Your task to perform on an android device: Open internet settings Image 0: 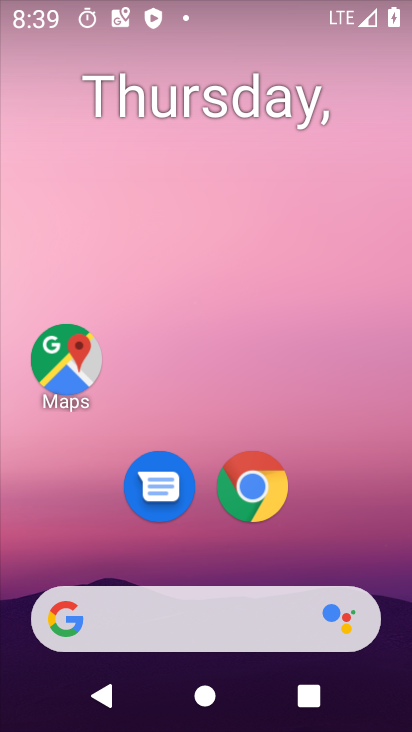
Step 0: drag from (219, 626) to (260, 266)
Your task to perform on an android device: Open internet settings Image 1: 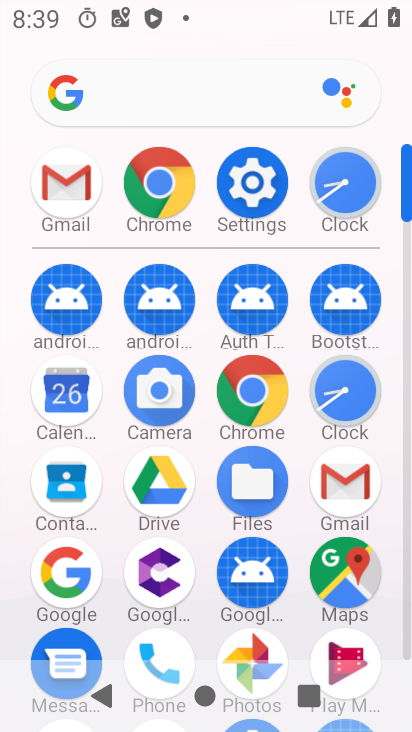
Step 1: click (252, 181)
Your task to perform on an android device: Open internet settings Image 2: 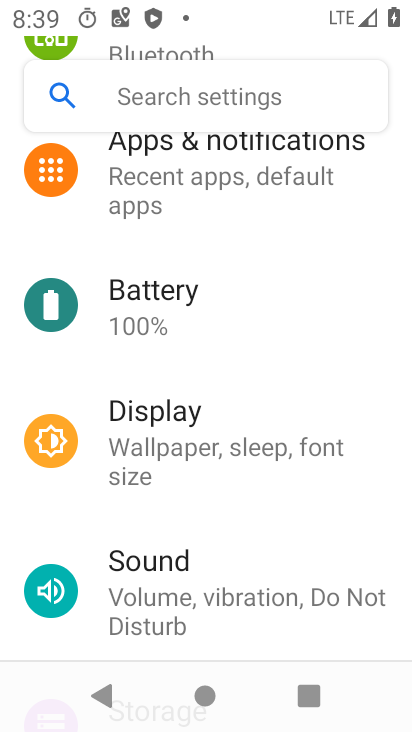
Step 2: drag from (195, 264) to (168, 565)
Your task to perform on an android device: Open internet settings Image 3: 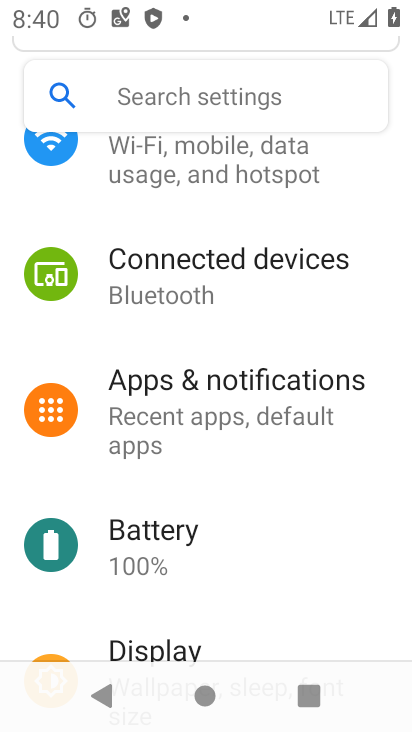
Step 3: drag from (198, 303) to (185, 647)
Your task to perform on an android device: Open internet settings Image 4: 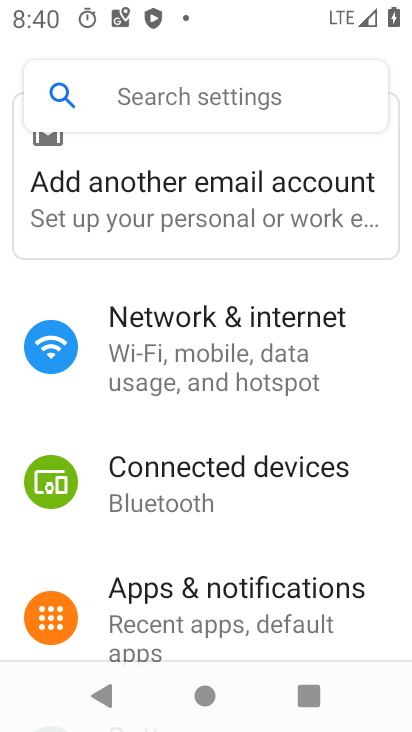
Step 4: drag from (176, 454) to (166, 701)
Your task to perform on an android device: Open internet settings Image 5: 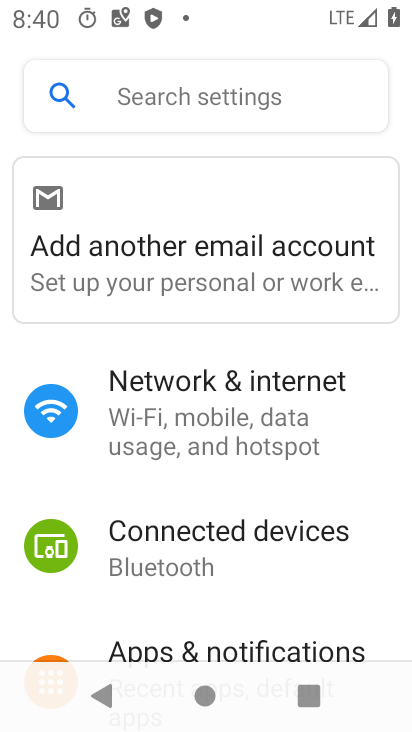
Step 5: click (251, 418)
Your task to perform on an android device: Open internet settings Image 6: 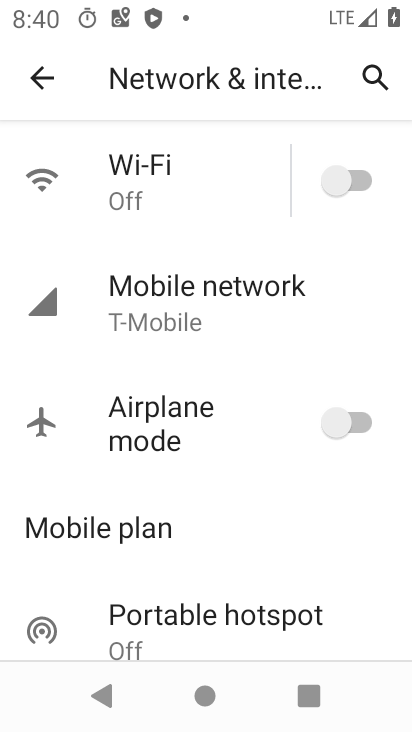
Step 6: click (226, 287)
Your task to perform on an android device: Open internet settings Image 7: 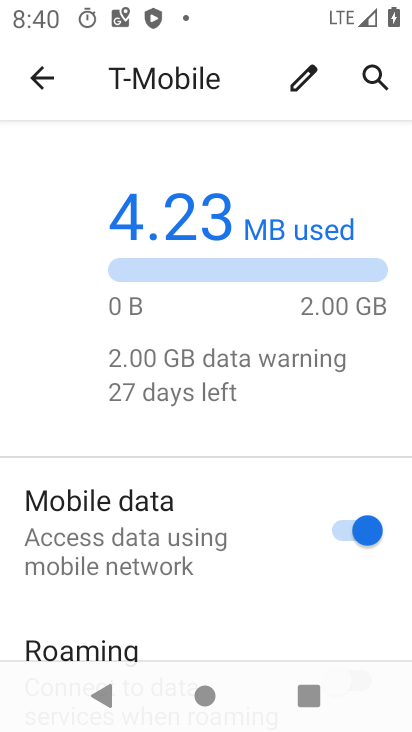
Step 7: task complete